Your task to perform on an android device: Go to Reddit.com Image 0: 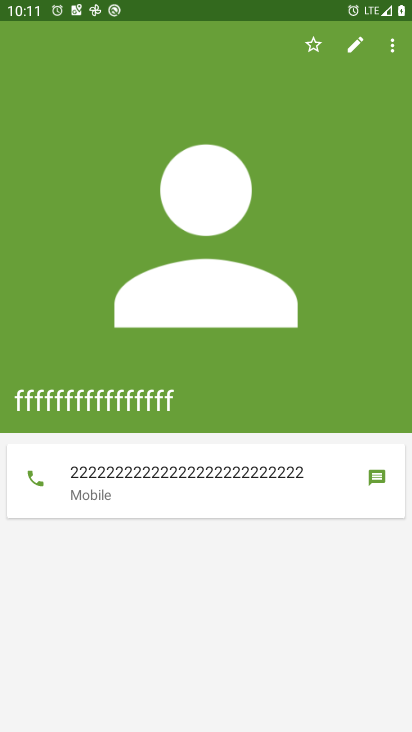
Step 0: press home button
Your task to perform on an android device: Go to Reddit.com Image 1: 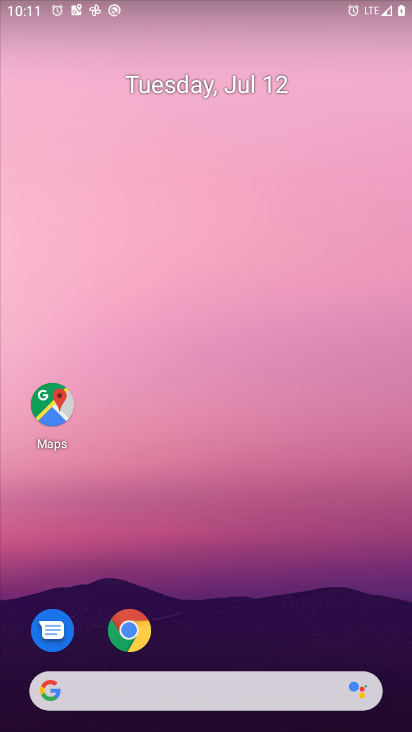
Step 1: click (206, 694)
Your task to perform on an android device: Go to Reddit.com Image 2: 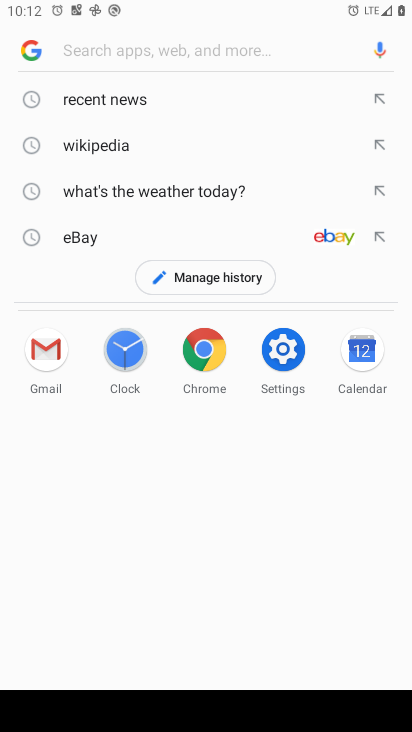
Step 2: type "Reddit.com"
Your task to perform on an android device: Go to Reddit.com Image 3: 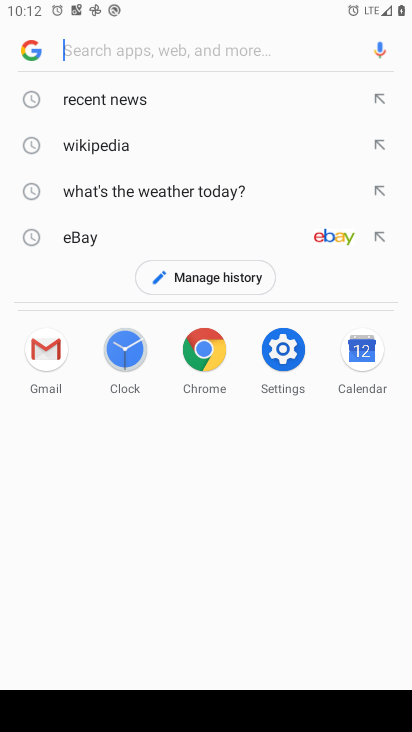
Step 3: click (102, 56)
Your task to perform on an android device: Go to Reddit.com Image 4: 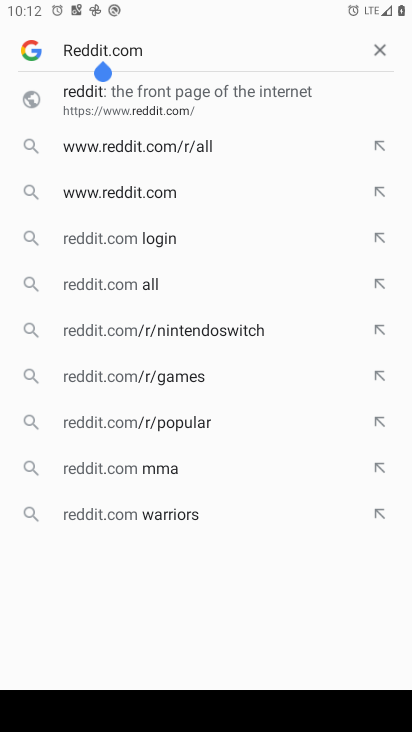
Step 4: press enter
Your task to perform on an android device: Go to Reddit.com Image 5: 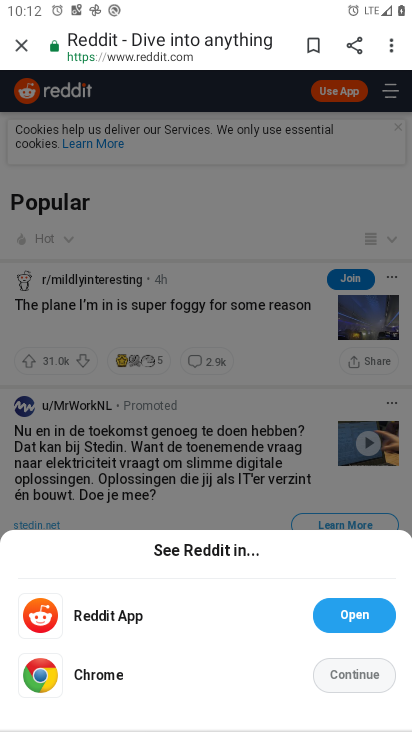
Step 5: task complete